Your task to perform on an android device: change text size in settings app Image 0: 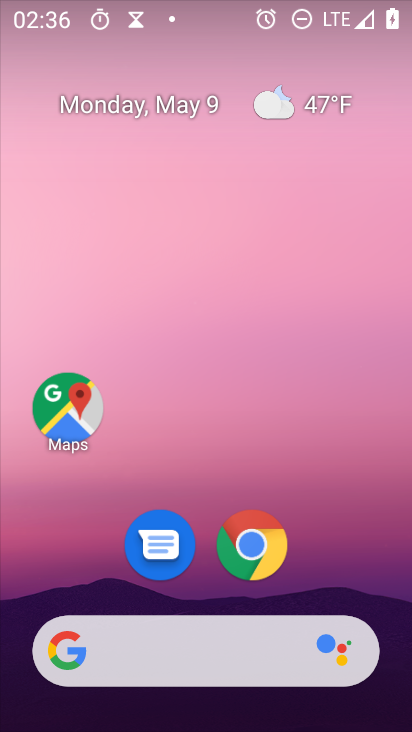
Step 0: drag from (331, 594) to (346, 37)
Your task to perform on an android device: change text size in settings app Image 1: 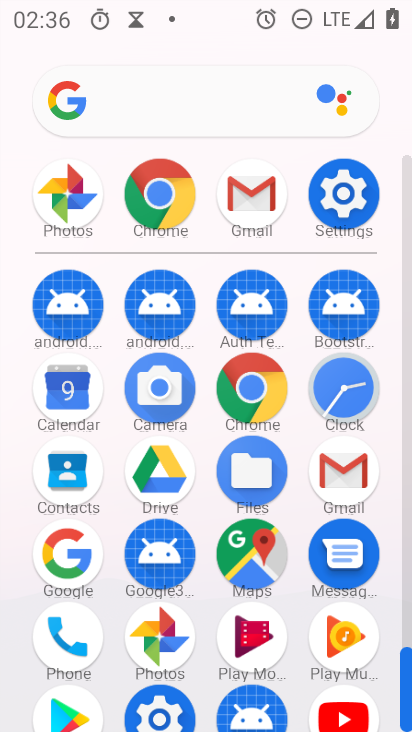
Step 1: click (360, 200)
Your task to perform on an android device: change text size in settings app Image 2: 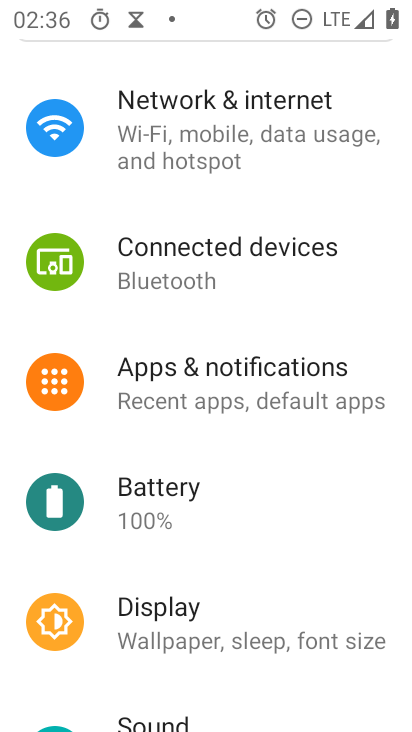
Step 2: drag from (278, 643) to (199, 671)
Your task to perform on an android device: change text size in settings app Image 3: 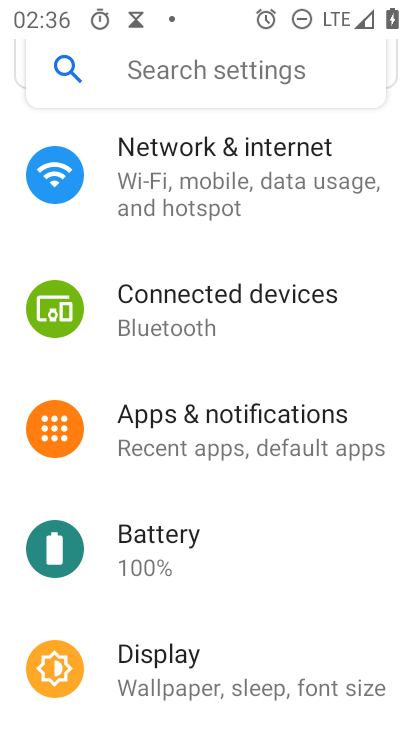
Step 3: click (156, 640)
Your task to perform on an android device: change text size in settings app Image 4: 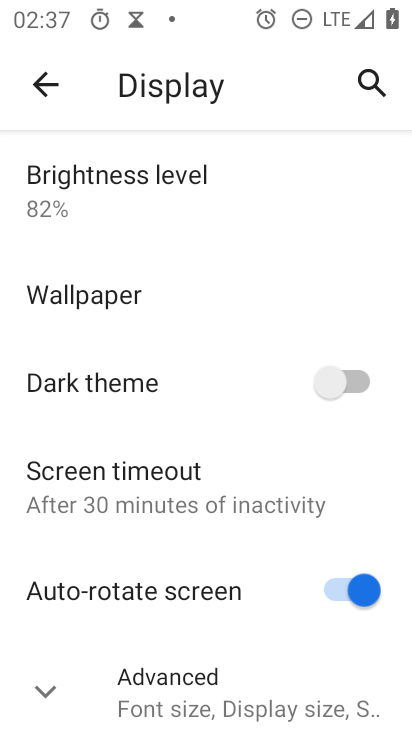
Step 4: press back button
Your task to perform on an android device: change text size in settings app Image 5: 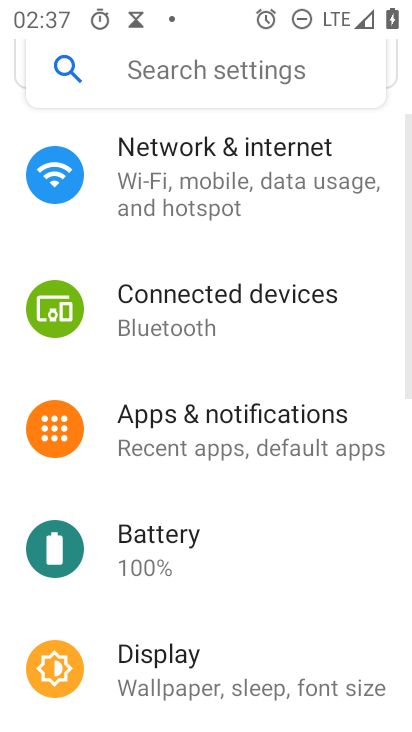
Step 5: drag from (275, 694) to (269, 53)
Your task to perform on an android device: change text size in settings app Image 6: 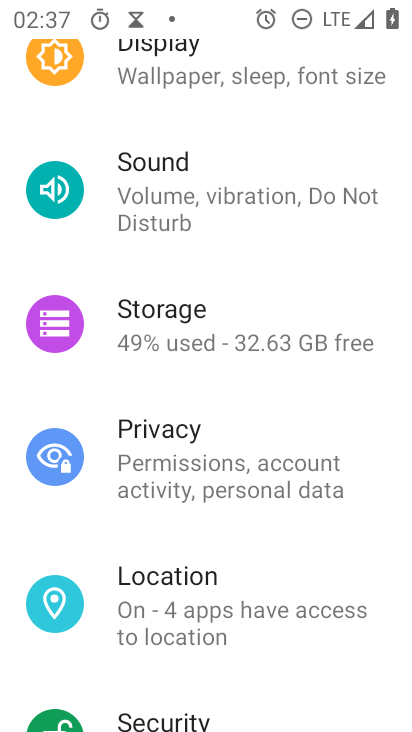
Step 6: drag from (219, 690) to (252, 44)
Your task to perform on an android device: change text size in settings app Image 7: 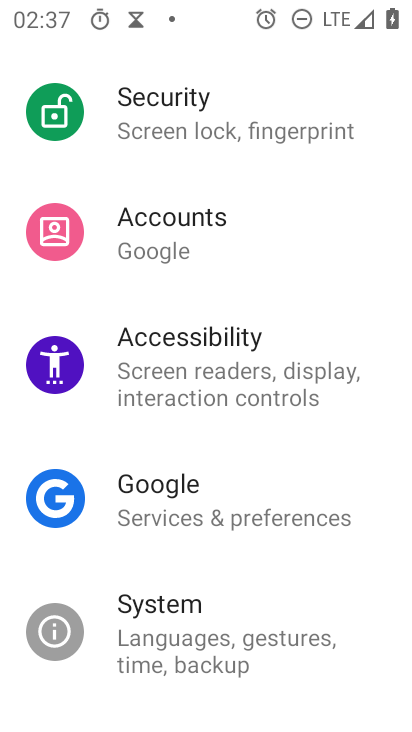
Step 7: drag from (215, 164) to (267, 2)
Your task to perform on an android device: change text size in settings app Image 8: 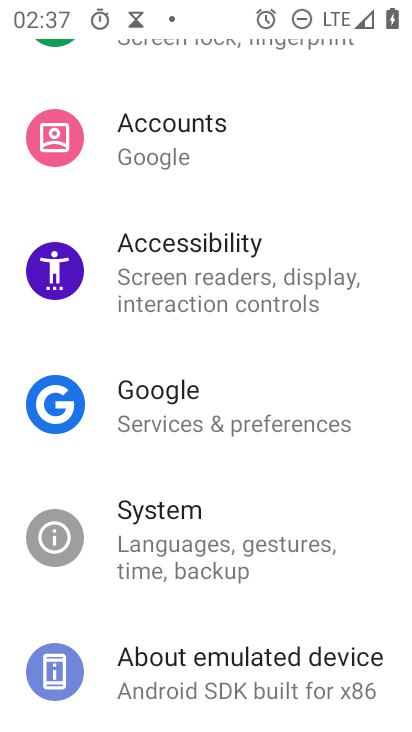
Step 8: click (206, 264)
Your task to perform on an android device: change text size in settings app Image 9: 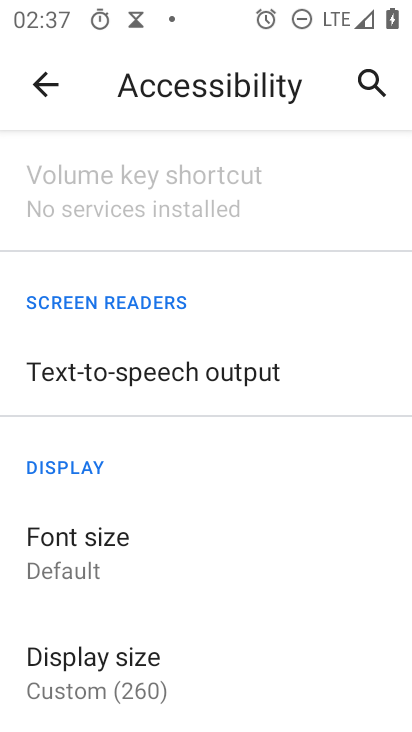
Step 9: click (141, 547)
Your task to perform on an android device: change text size in settings app Image 10: 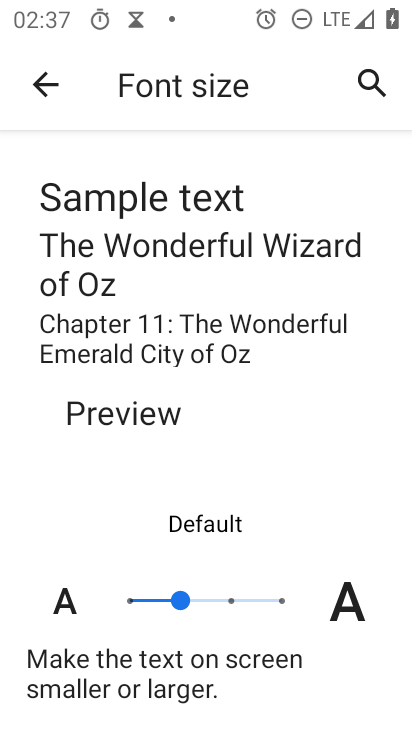
Step 10: click (213, 598)
Your task to perform on an android device: change text size in settings app Image 11: 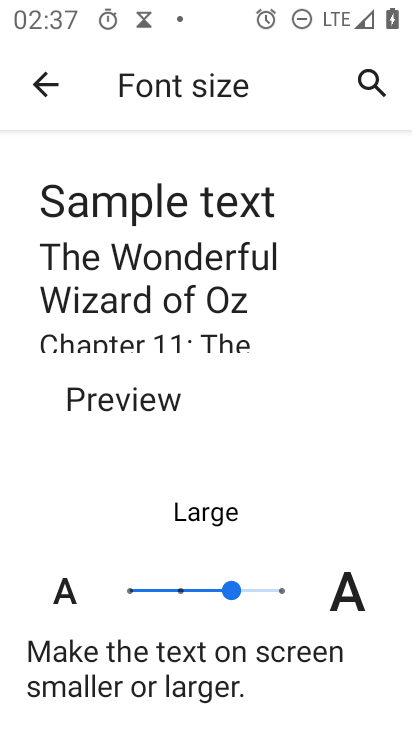
Step 11: task complete